Your task to perform on an android device: check android version Image 0: 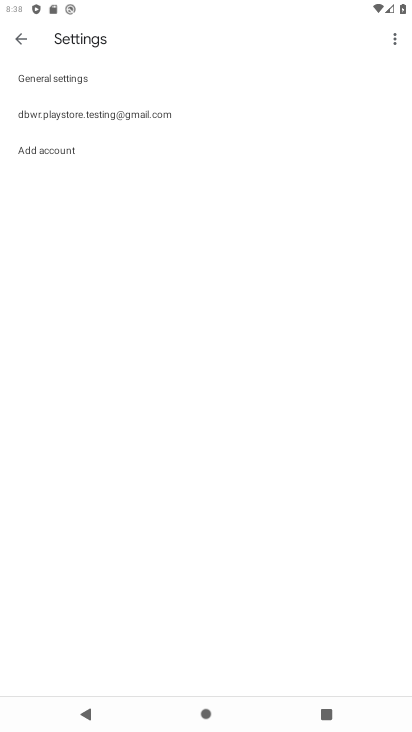
Step 0: press back button
Your task to perform on an android device: check android version Image 1: 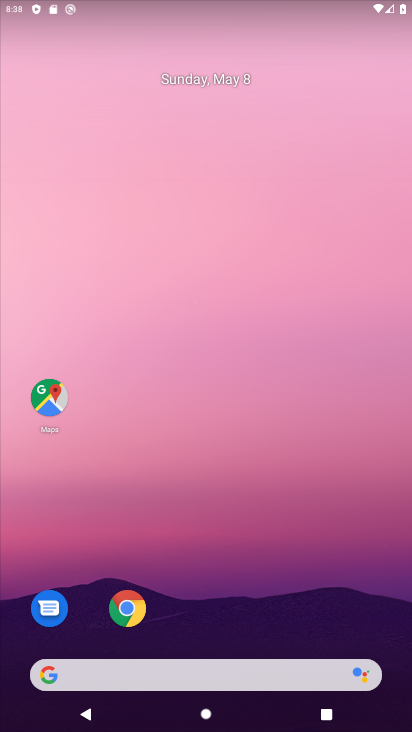
Step 1: drag from (238, 586) to (202, 66)
Your task to perform on an android device: check android version Image 2: 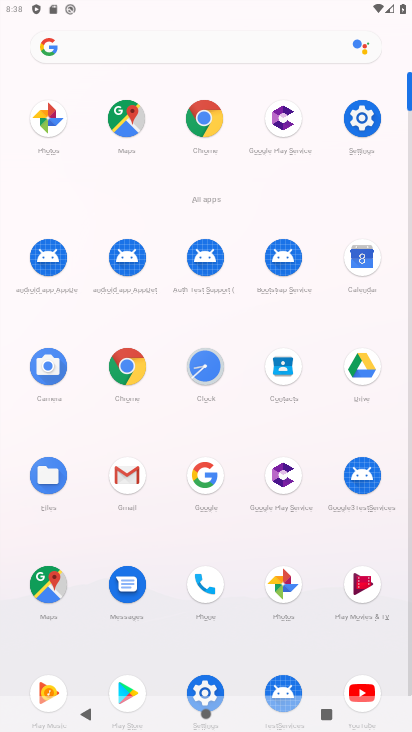
Step 2: click (363, 117)
Your task to perform on an android device: check android version Image 3: 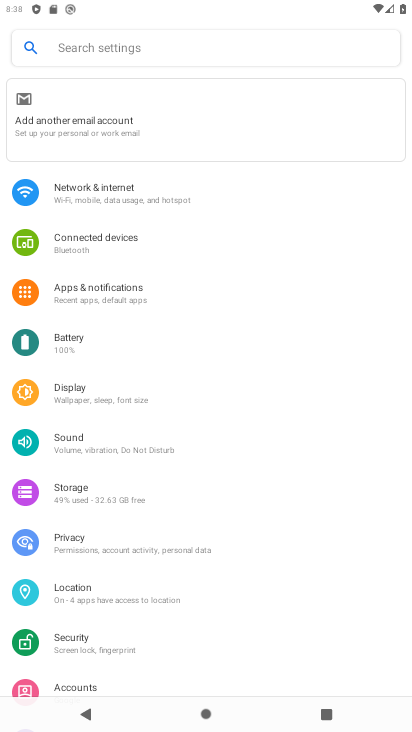
Step 3: drag from (92, 489) to (145, 392)
Your task to perform on an android device: check android version Image 4: 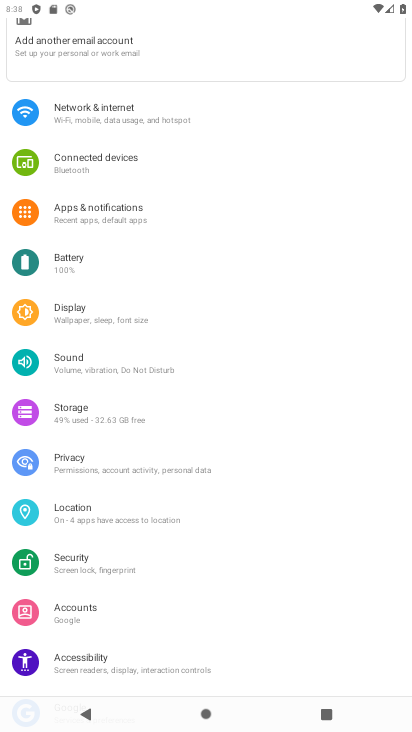
Step 4: drag from (122, 538) to (185, 414)
Your task to perform on an android device: check android version Image 5: 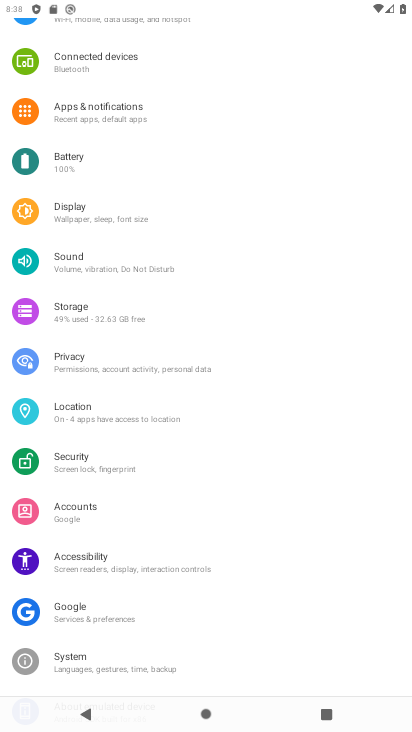
Step 5: drag from (123, 589) to (167, 481)
Your task to perform on an android device: check android version Image 6: 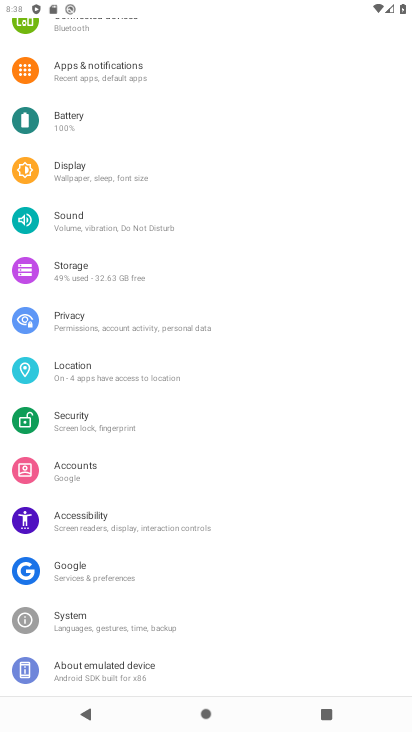
Step 6: click (75, 668)
Your task to perform on an android device: check android version Image 7: 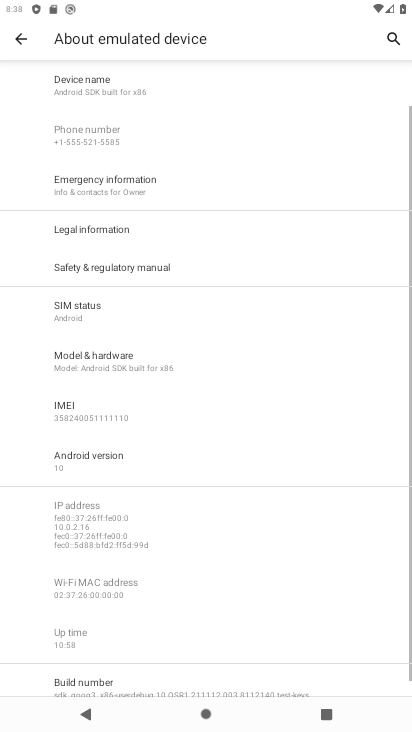
Step 7: click (118, 456)
Your task to perform on an android device: check android version Image 8: 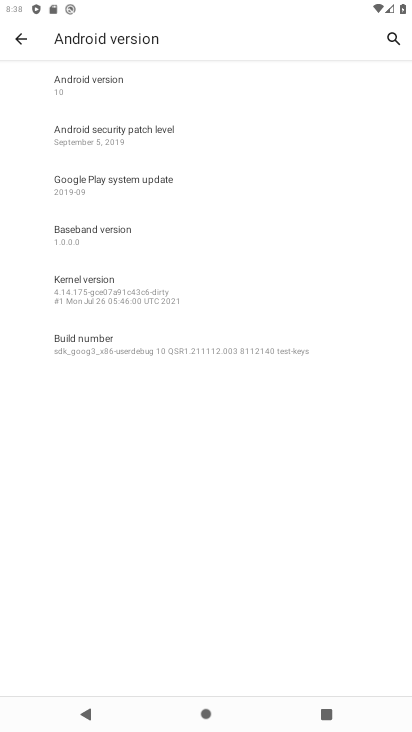
Step 8: task complete